Your task to perform on an android device: visit the assistant section in the google photos Image 0: 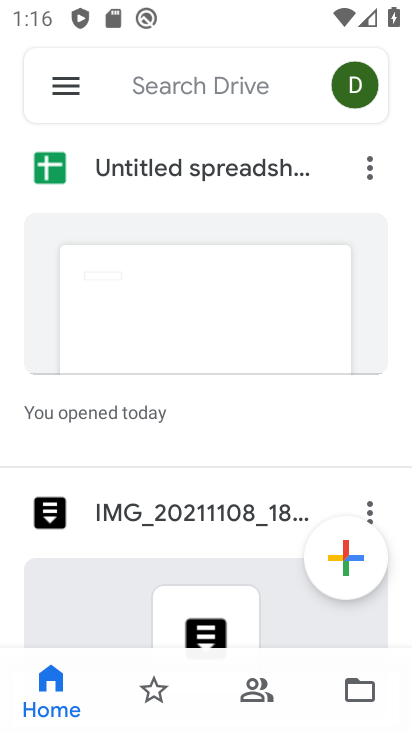
Step 0: press home button
Your task to perform on an android device: visit the assistant section in the google photos Image 1: 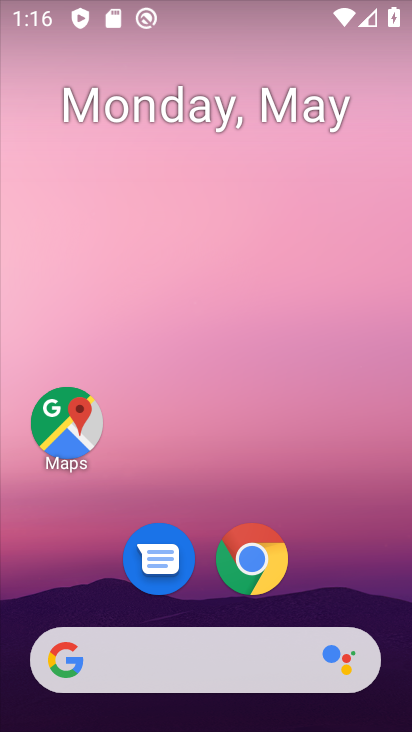
Step 1: drag from (311, 483) to (221, 35)
Your task to perform on an android device: visit the assistant section in the google photos Image 2: 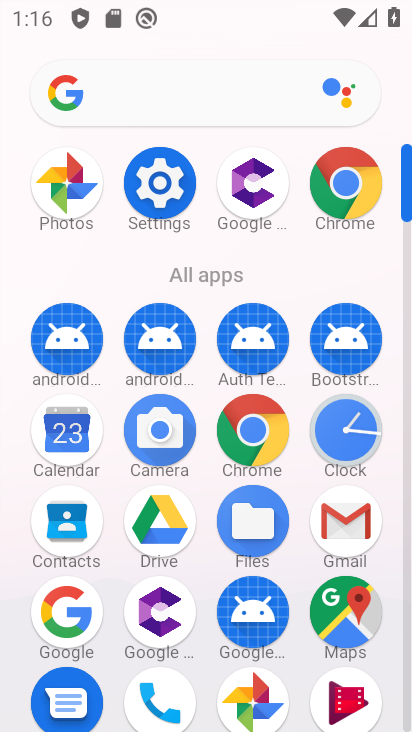
Step 2: click (241, 688)
Your task to perform on an android device: visit the assistant section in the google photos Image 3: 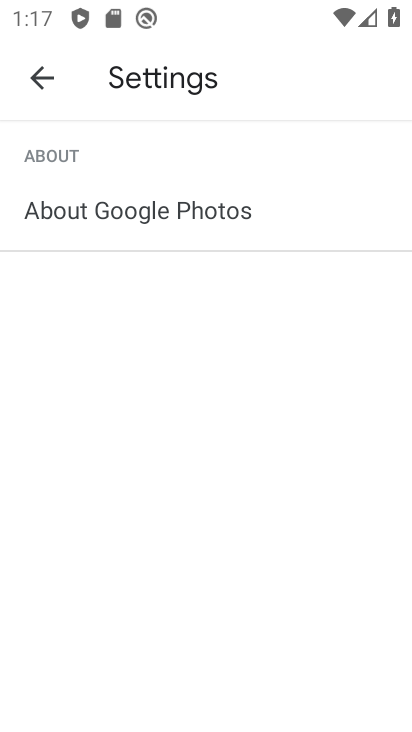
Step 3: click (35, 70)
Your task to perform on an android device: visit the assistant section in the google photos Image 4: 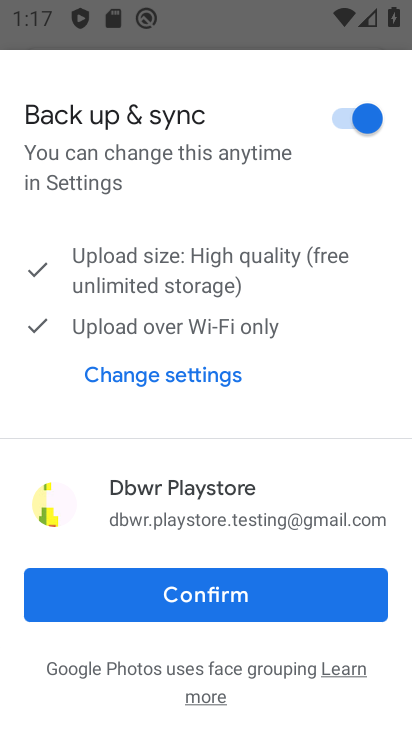
Step 4: click (212, 599)
Your task to perform on an android device: visit the assistant section in the google photos Image 5: 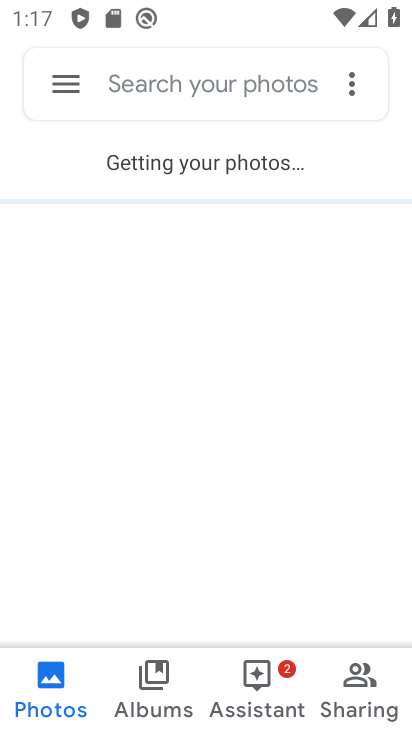
Step 5: click (234, 676)
Your task to perform on an android device: visit the assistant section in the google photos Image 6: 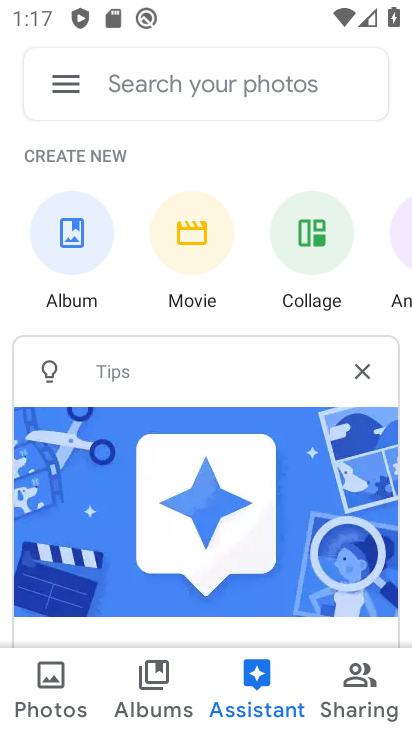
Step 6: task complete